Your task to perform on an android device: manage bookmarks in the chrome app Image 0: 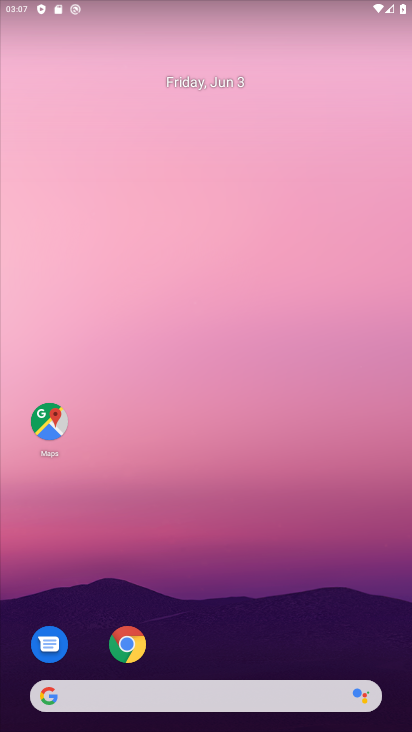
Step 0: drag from (343, 640) to (380, 25)
Your task to perform on an android device: manage bookmarks in the chrome app Image 1: 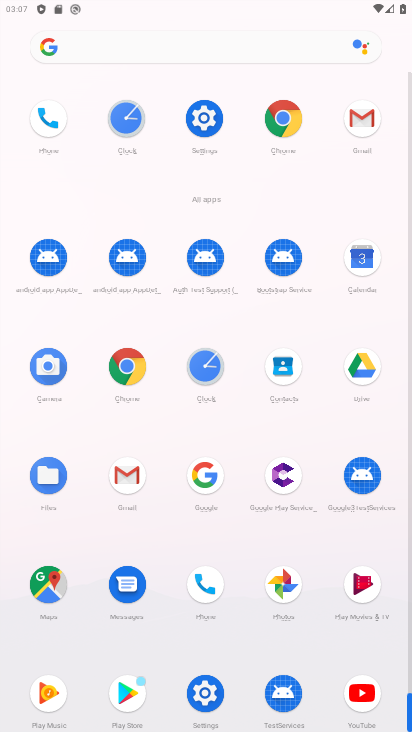
Step 1: click (53, 391)
Your task to perform on an android device: manage bookmarks in the chrome app Image 2: 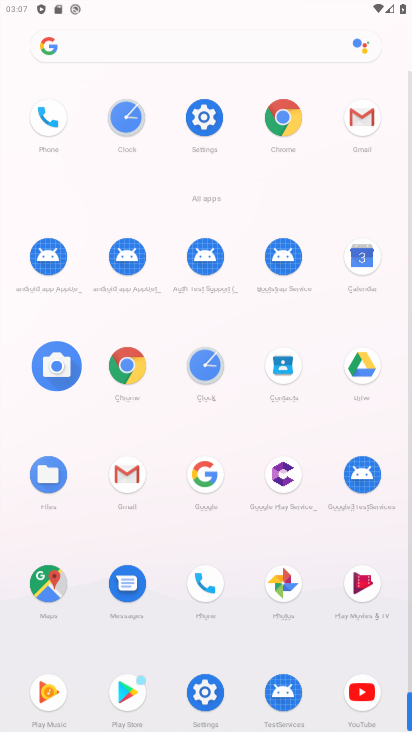
Step 2: click (125, 368)
Your task to perform on an android device: manage bookmarks in the chrome app Image 3: 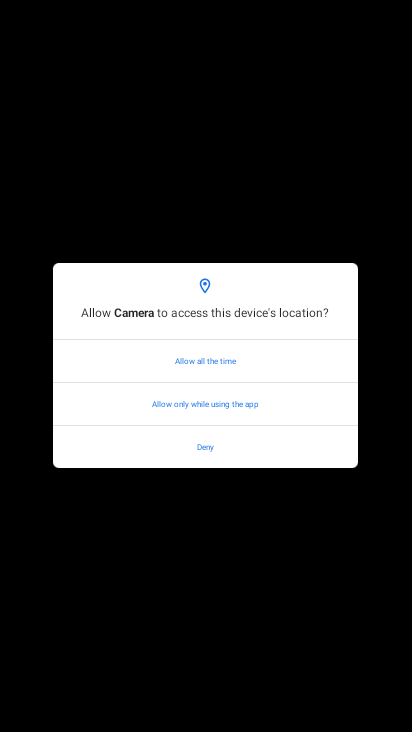
Step 3: click (239, 363)
Your task to perform on an android device: manage bookmarks in the chrome app Image 4: 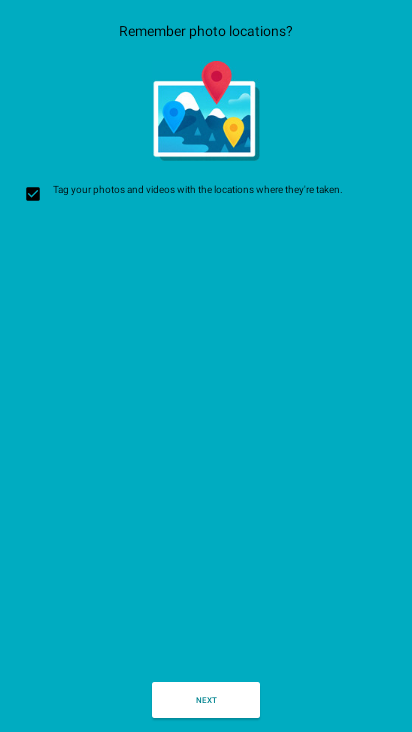
Step 4: press home button
Your task to perform on an android device: manage bookmarks in the chrome app Image 5: 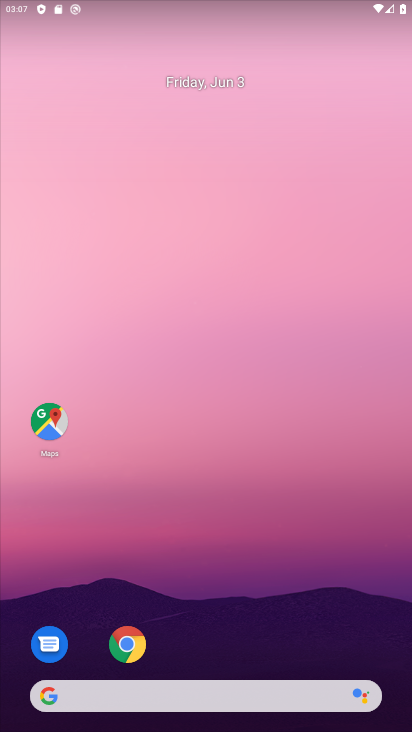
Step 5: click (125, 648)
Your task to perform on an android device: manage bookmarks in the chrome app Image 6: 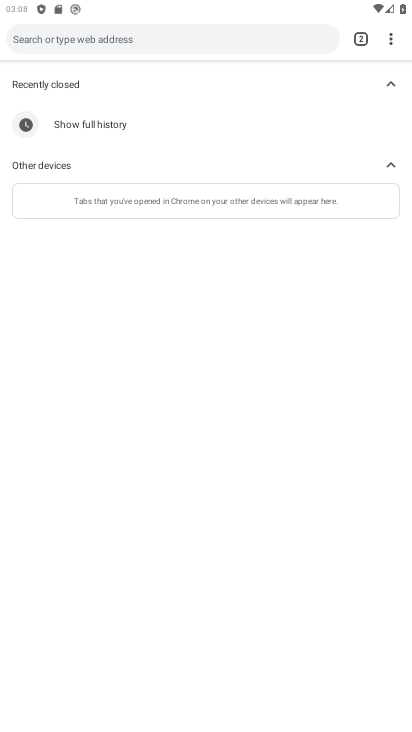
Step 6: drag from (391, 44) to (250, 323)
Your task to perform on an android device: manage bookmarks in the chrome app Image 7: 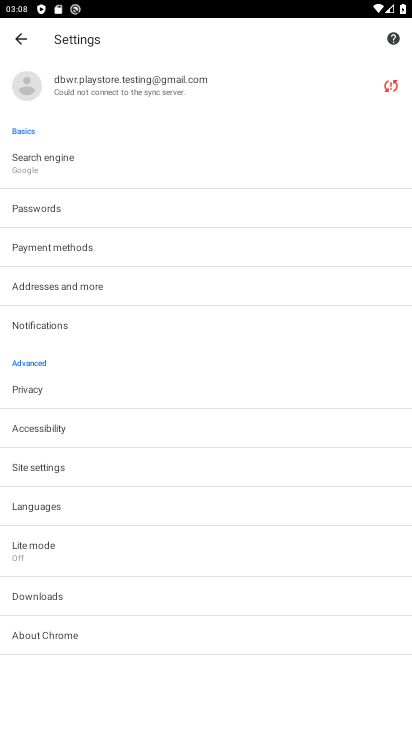
Step 7: click (24, 34)
Your task to perform on an android device: manage bookmarks in the chrome app Image 8: 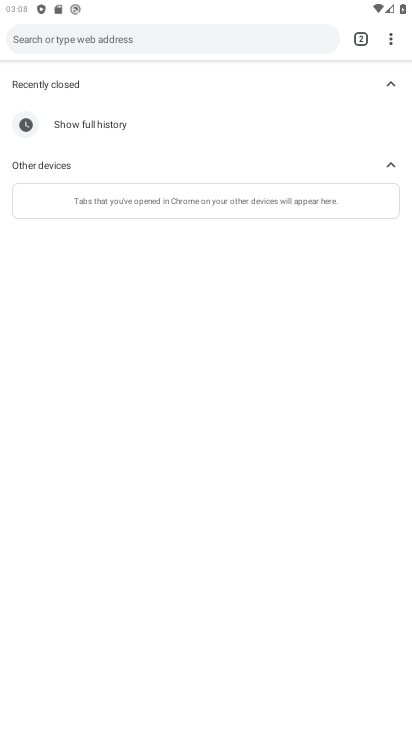
Step 8: task complete